Your task to perform on an android device: What's on my calendar tomorrow? Image 0: 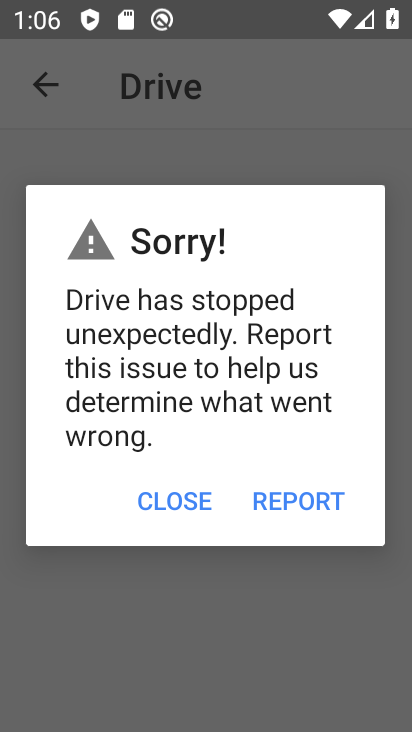
Step 0: press home button
Your task to perform on an android device: What's on my calendar tomorrow? Image 1: 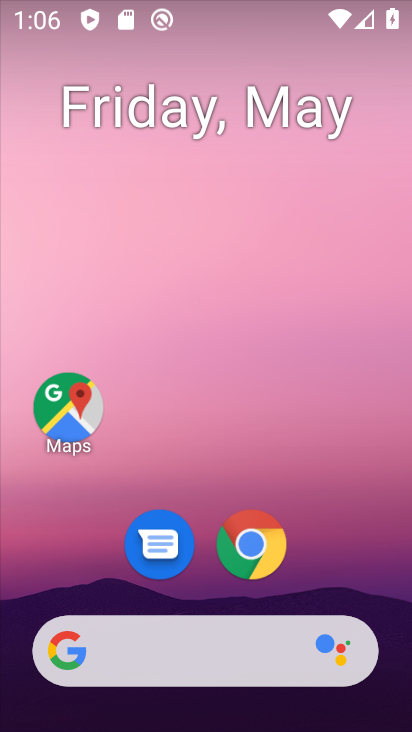
Step 1: drag from (48, 721) to (192, 265)
Your task to perform on an android device: What's on my calendar tomorrow? Image 2: 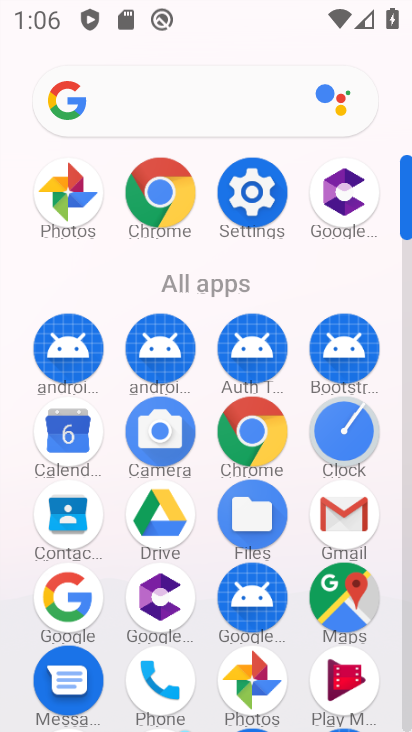
Step 2: click (77, 437)
Your task to perform on an android device: What's on my calendar tomorrow? Image 3: 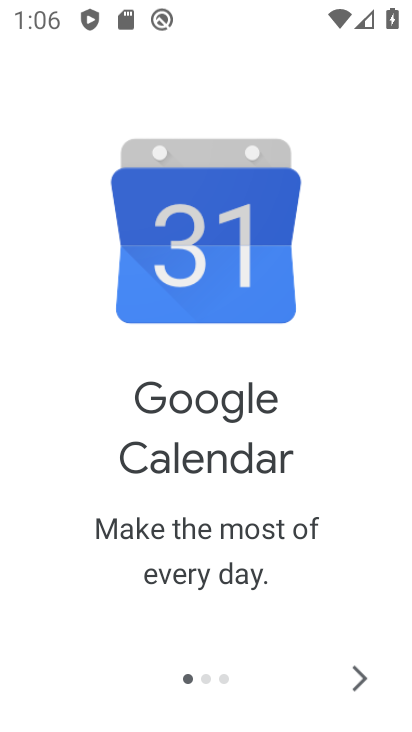
Step 3: click (360, 676)
Your task to perform on an android device: What's on my calendar tomorrow? Image 4: 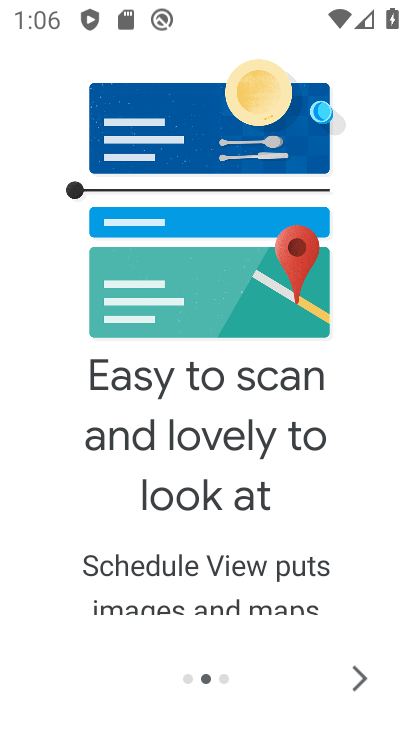
Step 4: click (360, 676)
Your task to perform on an android device: What's on my calendar tomorrow? Image 5: 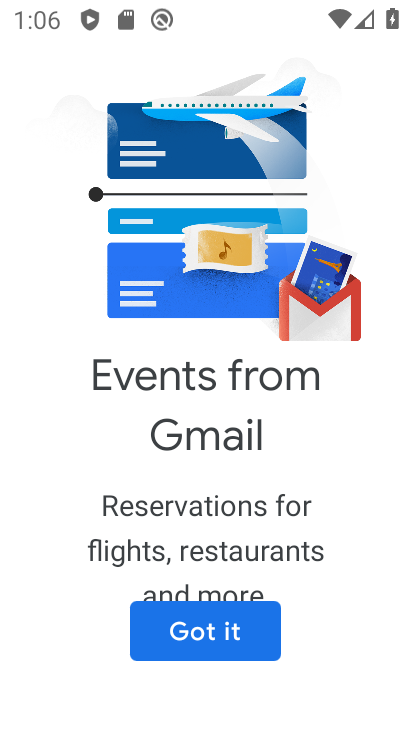
Step 5: click (266, 630)
Your task to perform on an android device: What's on my calendar tomorrow? Image 6: 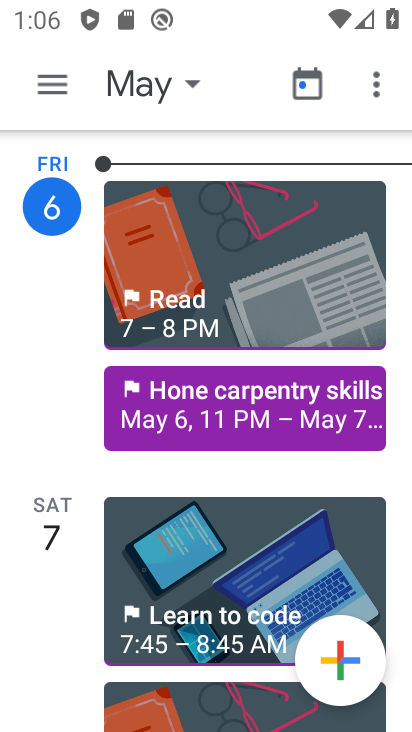
Step 6: task complete